Your task to perform on an android device: Check the news Image 0: 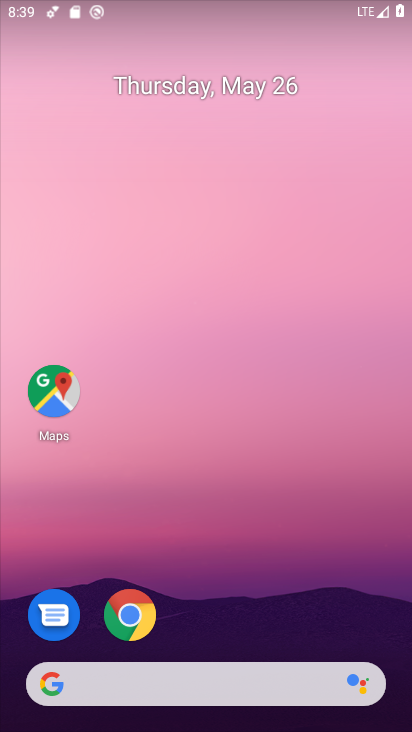
Step 0: drag from (272, 602) to (271, 199)
Your task to perform on an android device: Check the news Image 1: 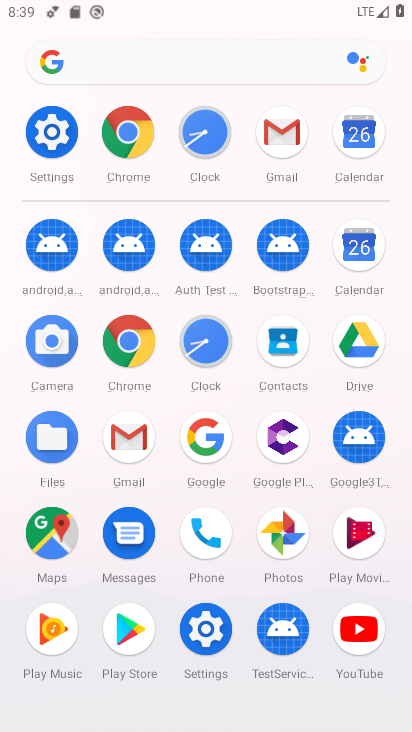
Step 1: click (121, 131)
Your task to perform on an android device: Check the news Image 2: 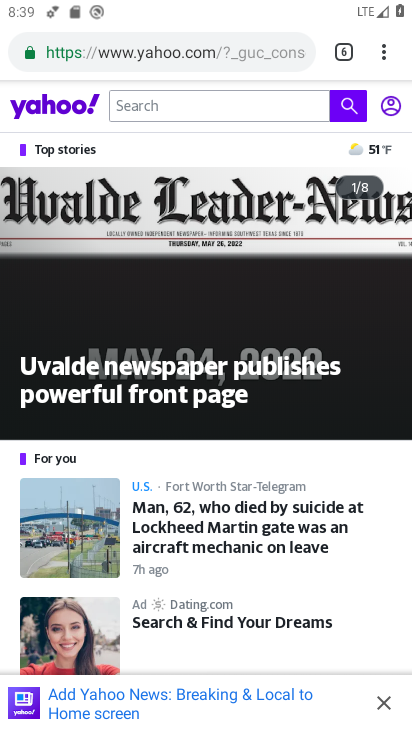
Step 2: click (382, 49)
Your task to perform on an android device: Check the news Image 3: 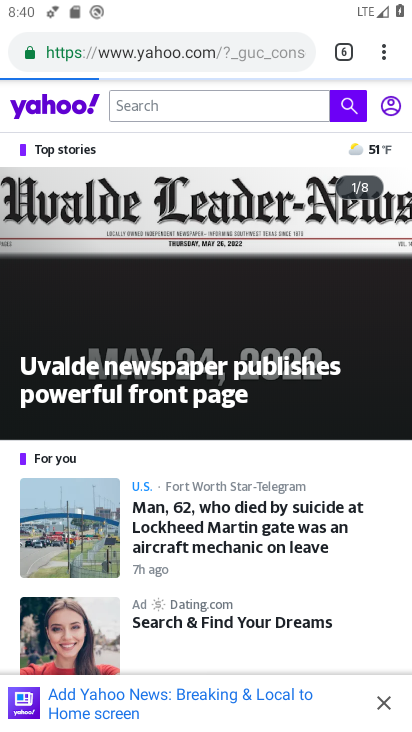
Step 3: click (386, 39)
Your task to perform on an android device: Check the news Image 4: 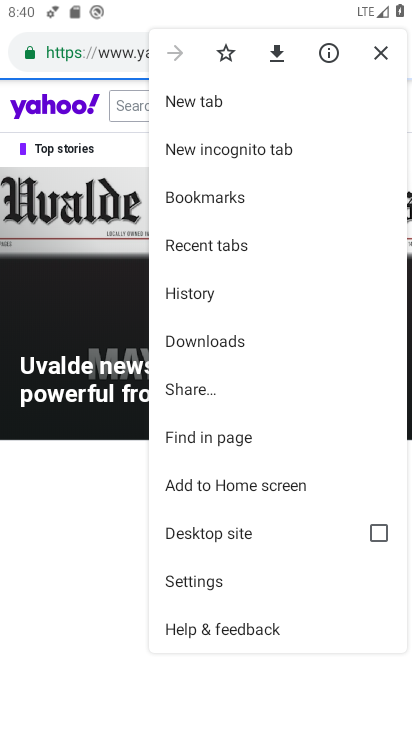
Step 4: click (189, 106)
Your task to perform on an android device: Check the news Image 5: 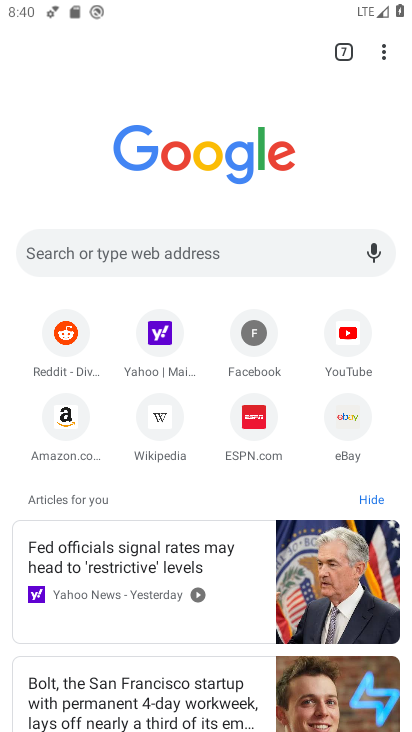
Step 5: click (226, 243)
Your task to perform on an android device: Check the news Image 6: 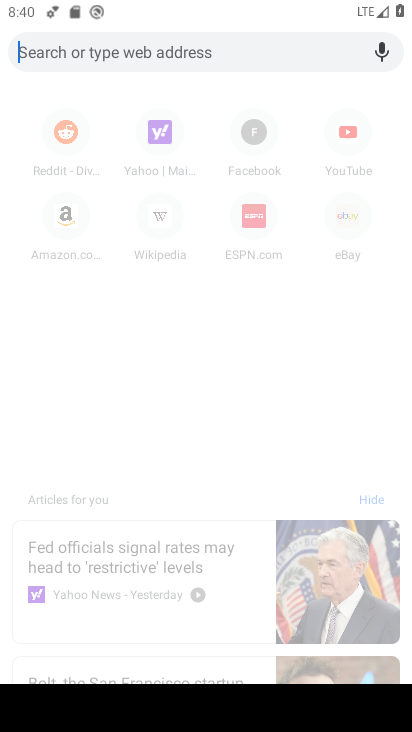
Step 6: type "Check the news"
Your task to perform on an android device: Check the news Image 7: 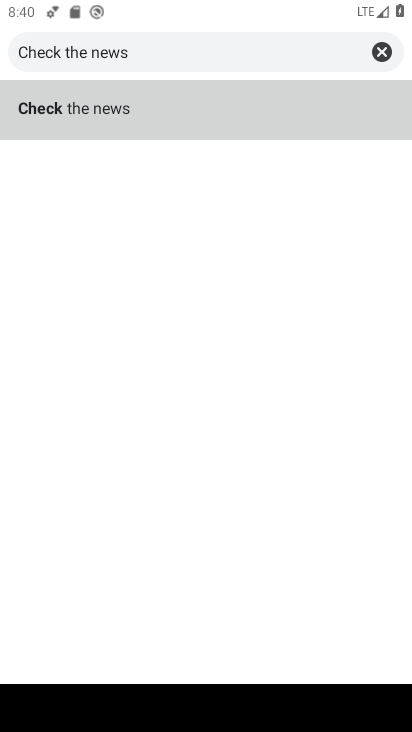
Step 7: click (127, 116)
Your task to perform on an android device: Check the news Image 8: 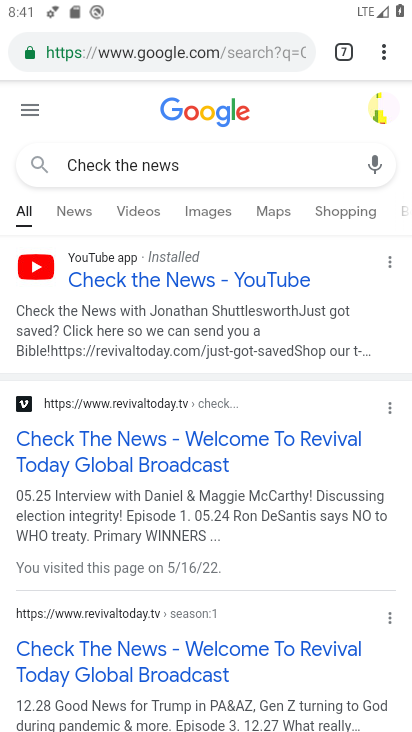
Step 8: task complete